Your task to perform on an android device: star an email in the gmail app Image 0: 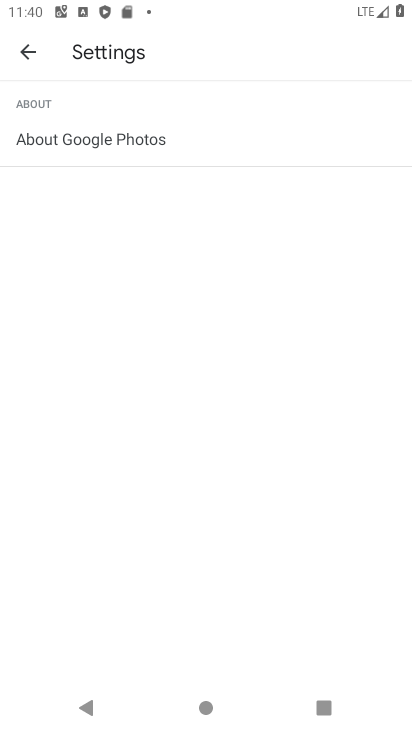
Step 0: press home button
Your task to perform on an android device: star an email in the gmail app Image 1: 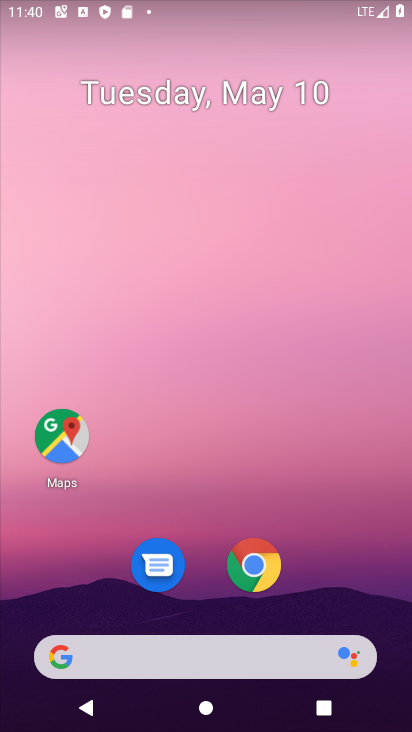
Step 1: drag from (26, 626) to (252, 160)
Your task to perform on an android device: star an email in the gmail app Image 2: 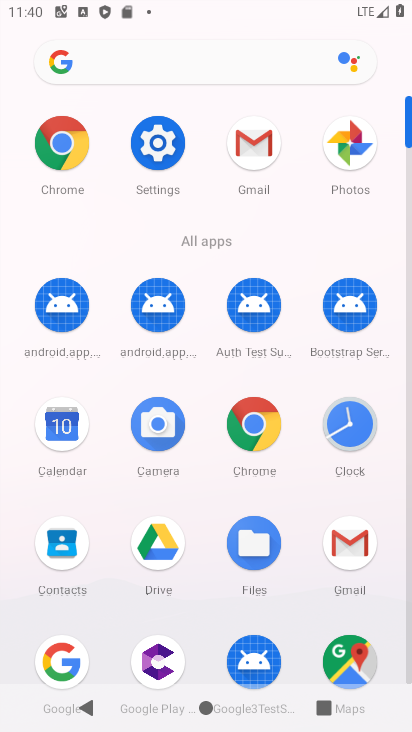
Step 2: click (258, 155)
Your task to perform on an android device: star an email in the gmail app Image 3: 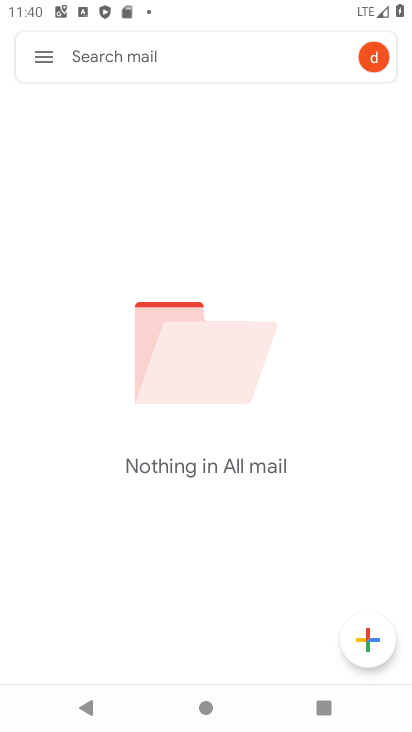
Step 3: click (44, 64)
Your task to perform on an android device: star an email in the gmail app Image 4: 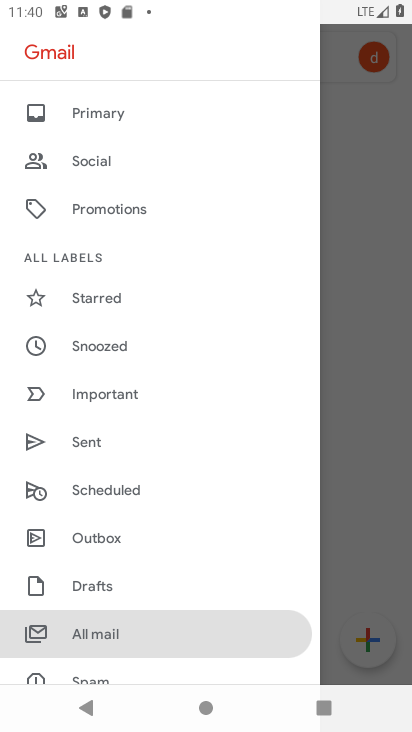
Step 4: click (122, 630)
Your task to perform on an android device: star an email in the gmail app Image 5: 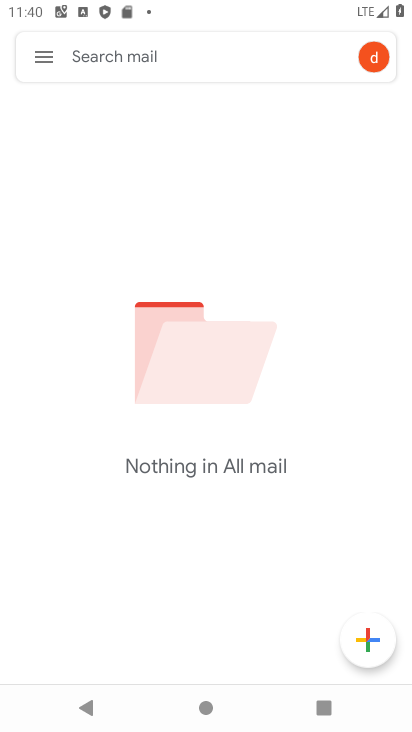
Step 5: task complete